Your task to perform on an android device: install app "Skype" Image 0: 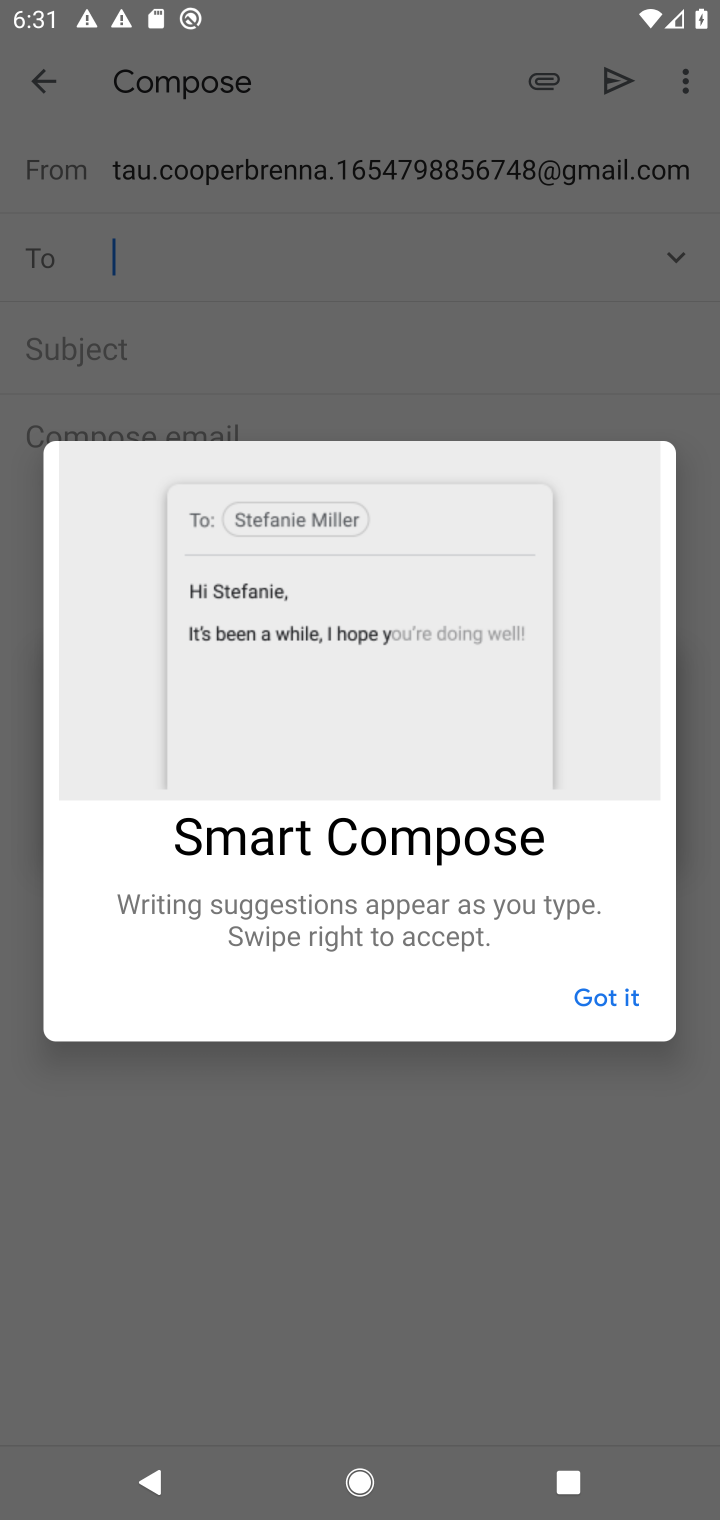
Step 0: press home button
Your task to perform on an android device: install app "Skype" Image 1: 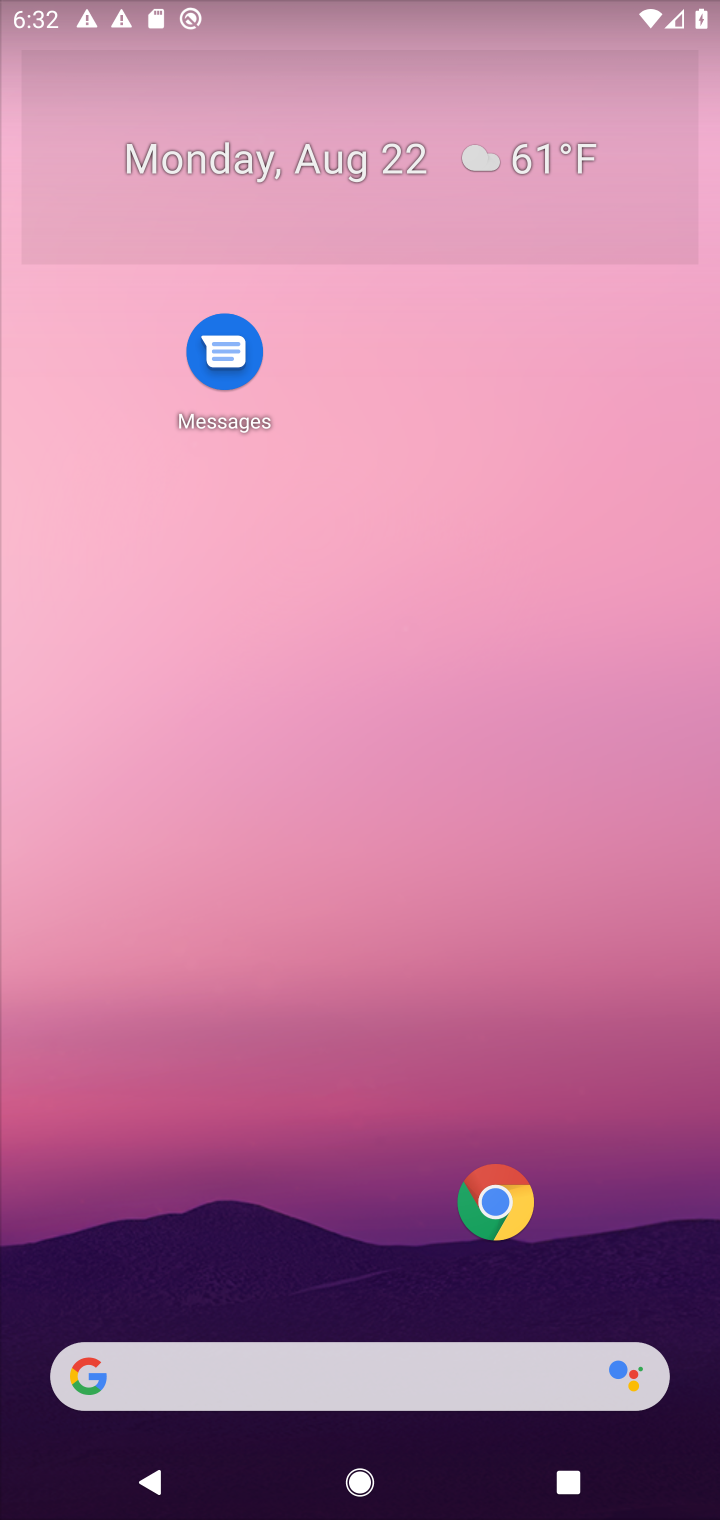
Step 1: drag from (374, 1351) to (334, 142)
Your task to perform on an android device: install app "Skype" Image 2: 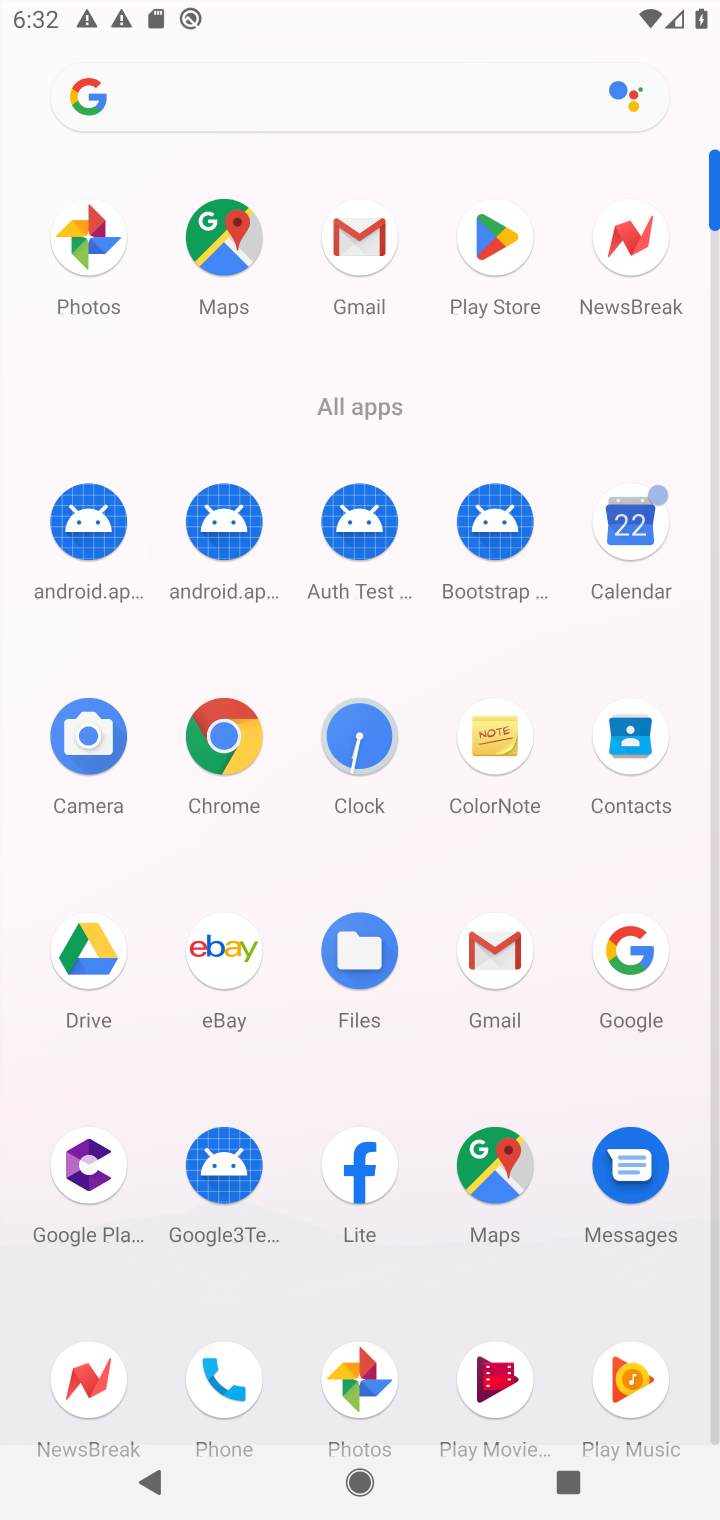
Step 2: click (502, 252)
Your task to perform on an android device: install app "Skype" Image 3: 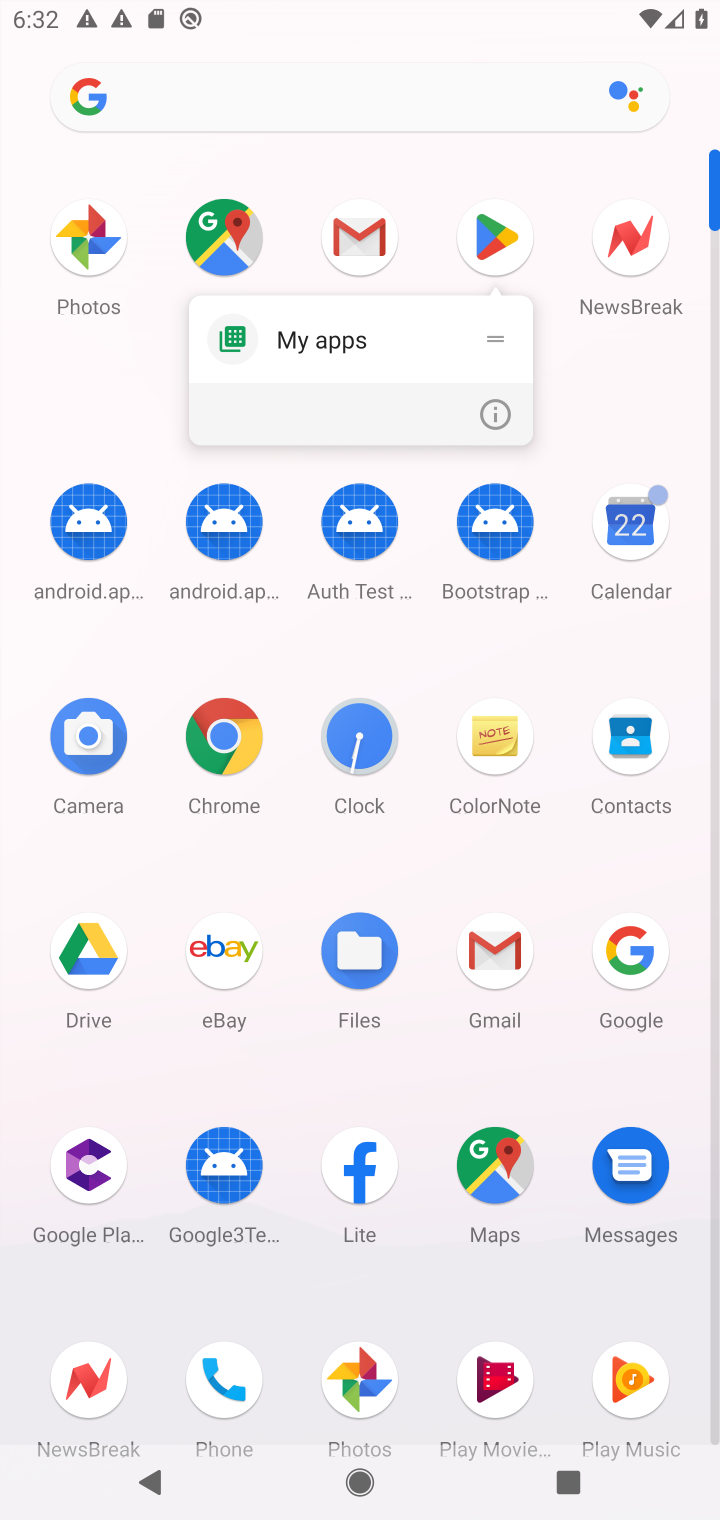
Step 3: click (495, 260)
Your task to perform on an android device: install app "Skype" Image 4: 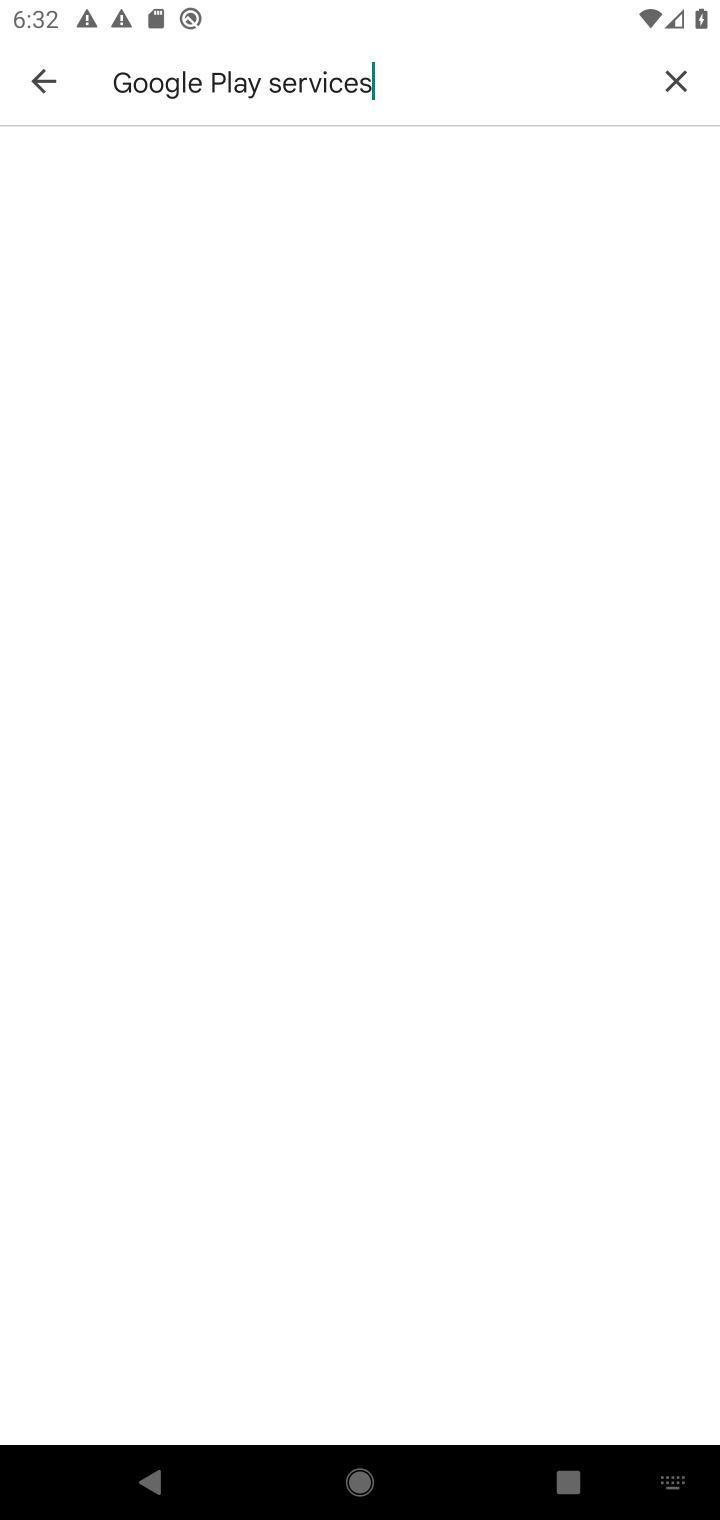
Step 4: click (665, 98)
Your task to perform on an android device: install app "Skype" Image 5: 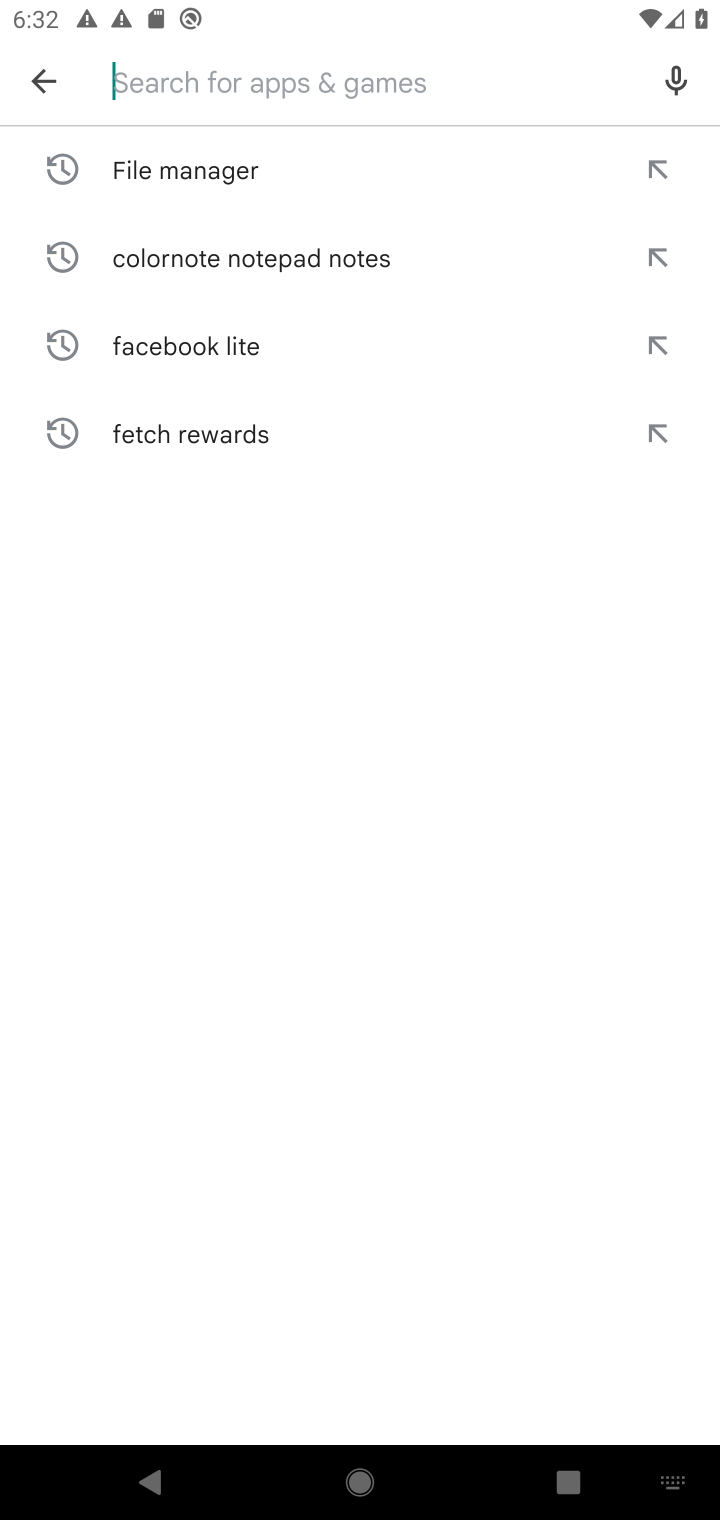
Step 5: type "Skype"
Your task to perform on an android device: install app "Skype" Image 6: 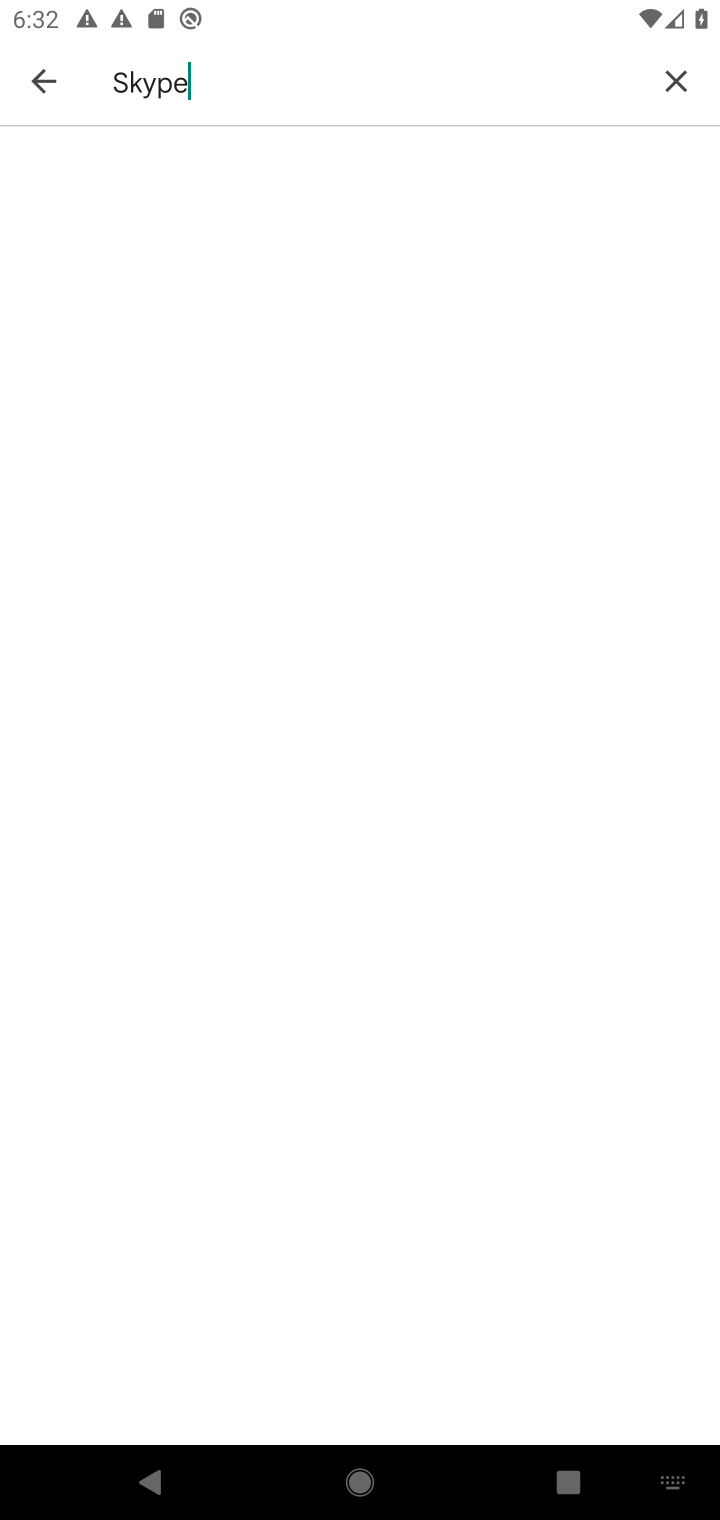
Step 6: task complete